Your task to perform on an android device: turn off picture-in-picture Image 0: 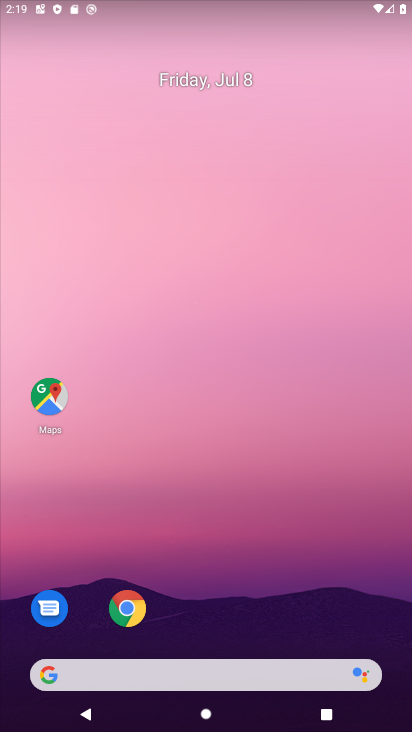
Step 0: drag from (333, 606) to (316, 1)
Your task to perform on an android device: turn off picture-in-picture Image 1: 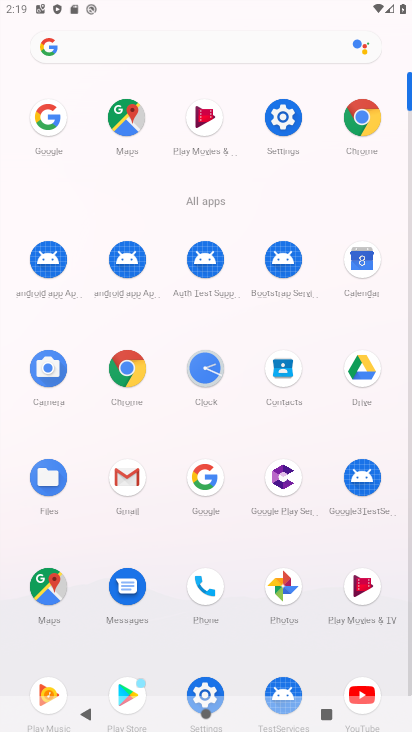
Step 1: click (280, 120)
Your task to perform on an android device: turn off picture-in-picture Image 2: 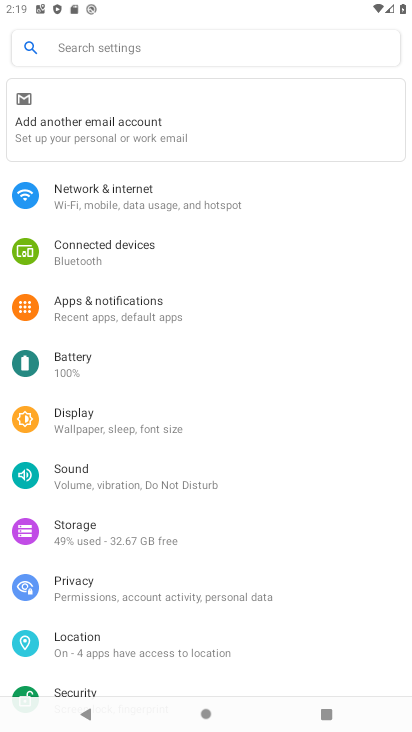
Step 2: click (143, 310)
Your task to perform on an android device: turn off picture-in-picture Image 3: 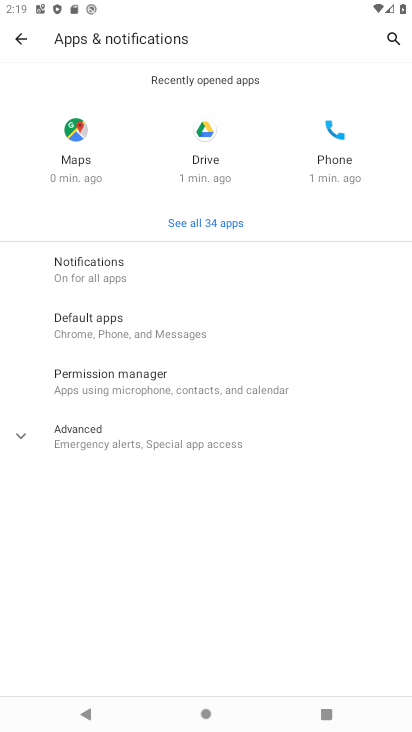
Step 3: click (125, 439)
Your task to perform on an android device: turn off picture-in-picture Image 4: 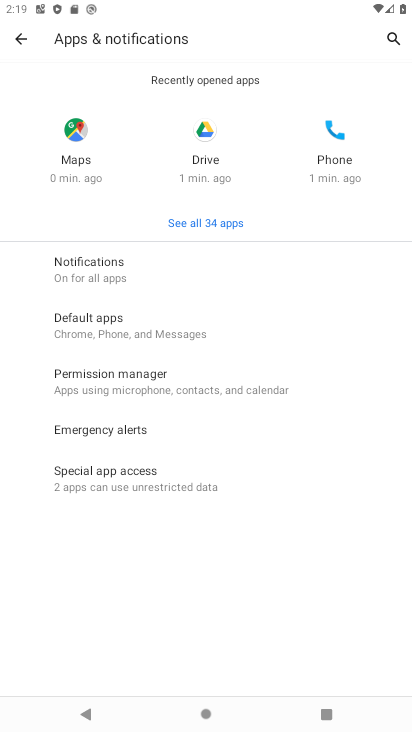
Step 4: click (153, 485)
Your task to perform on an android device: turn off picture-in-picture Image 5: 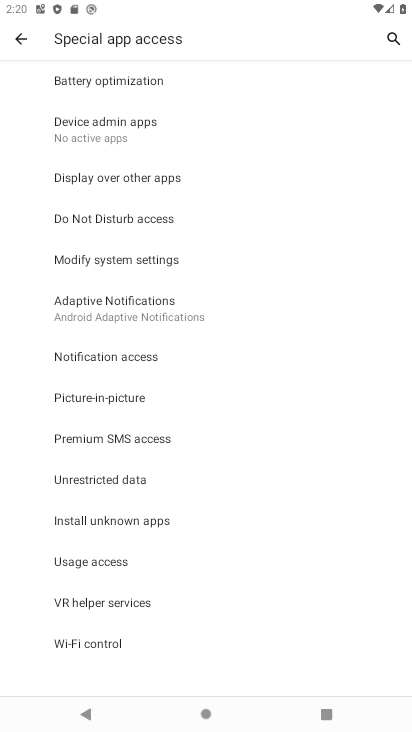
Step 5: click (130, 401)
Your task to perform on an android device: turn off picture-in-picture Image 6: 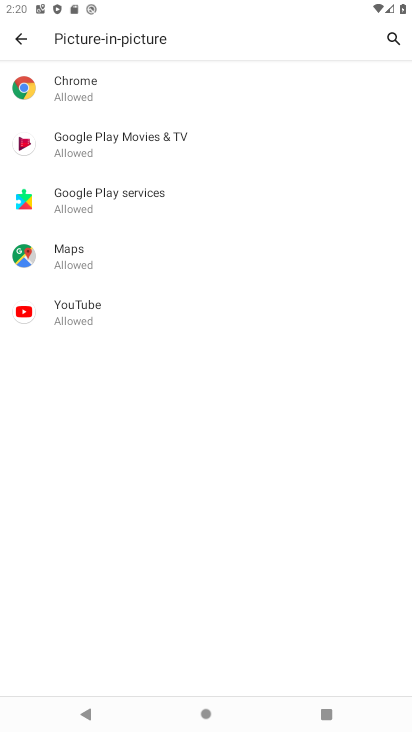
Step 6: click (93, 93)
Your task to perform on an android device: turn off picture-in-picture Image 7: 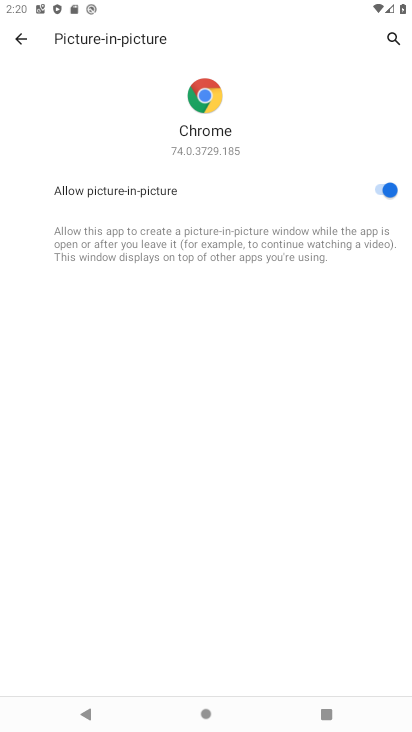
Step 7: click (382, 193)
Your task to perform on an android device: turn off picture-in-picture Image 8: 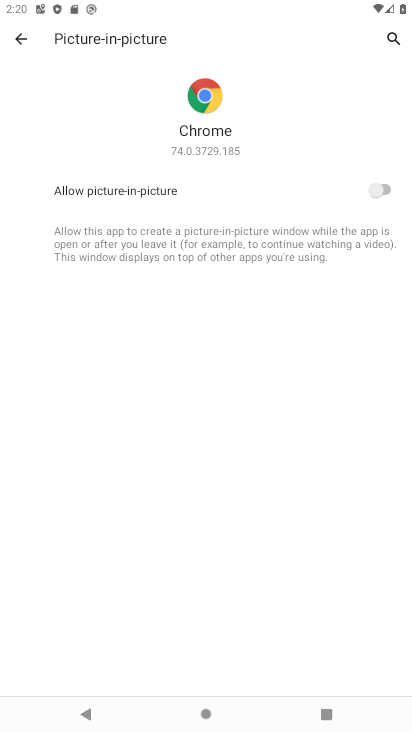
Step 8: press back button
Your task to perform on an android device: turn off picture-in-picture Image 9: 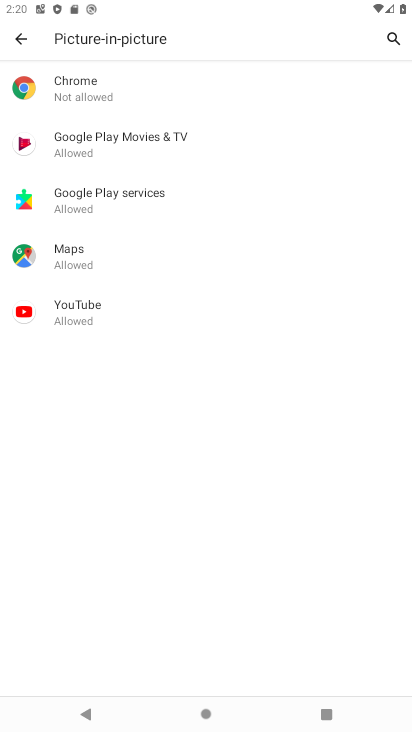
Step 9: click (90, 147)
Your task to perform on an android device: turn off picture-in-picture Image 10: 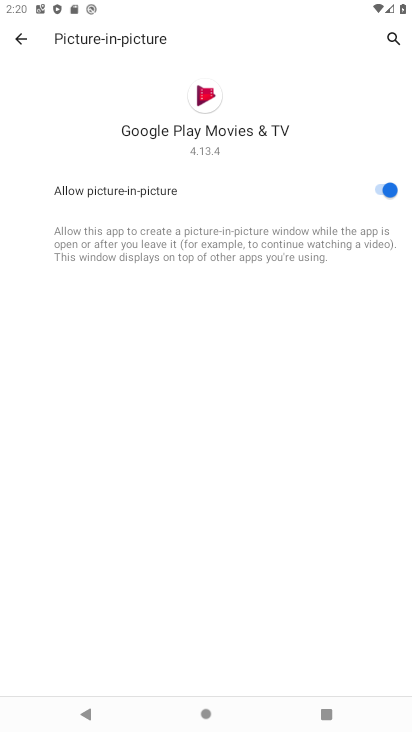
Step 10: click (377, 185)
Your task to perform on an android device: turn off picture-in-picture Image 11: 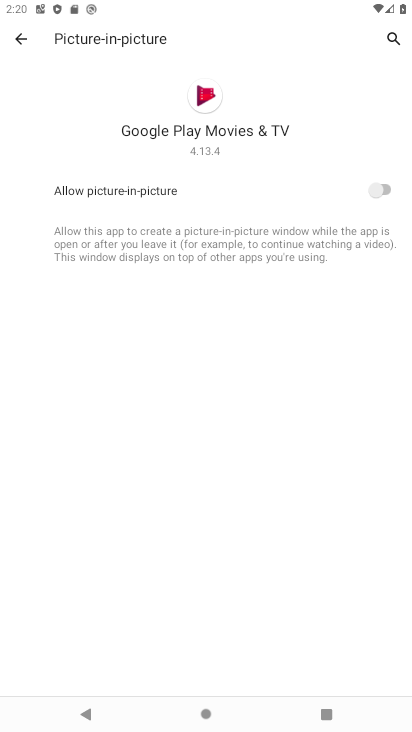
Step 11: press back button
Your task to perform on an android device: turn off picture-in-picture Image 12: 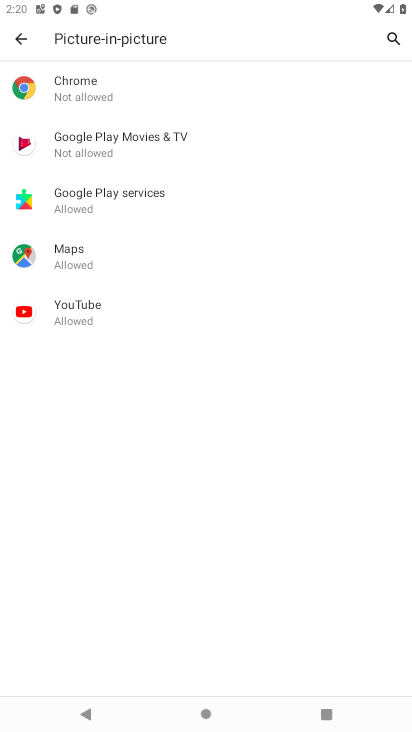
Step 12: click (94, 198)
Your task to perform on an android device: turn off picture-in-picture Image 13: 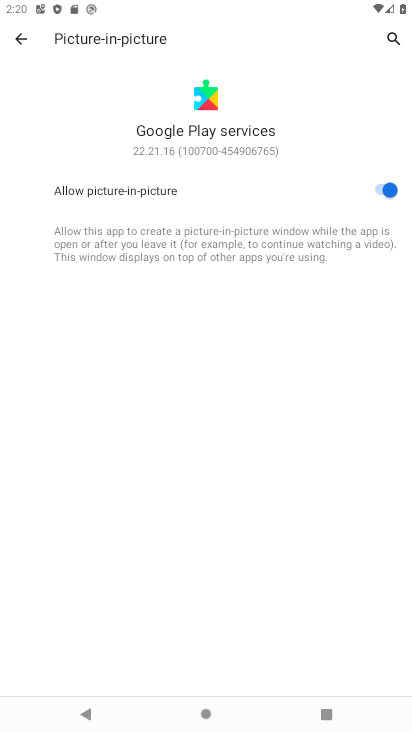
Step 13: click (377, 188)
Your task to perform on an android device: turn off picture-in-picture Image 14: 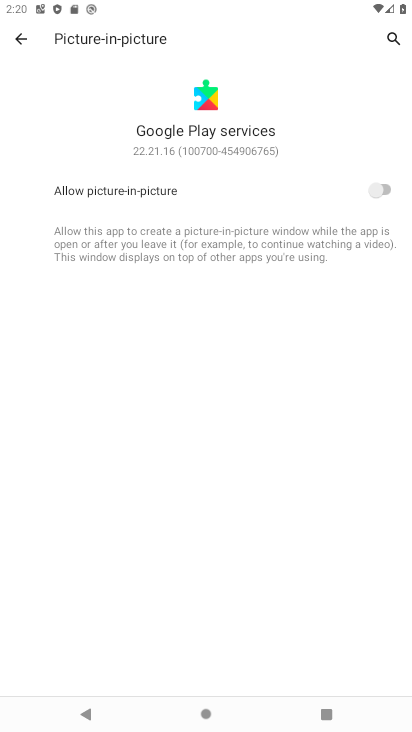
Step 14: press back button
Your task to perform on an android device: turn off picture-in-picture Image 15: 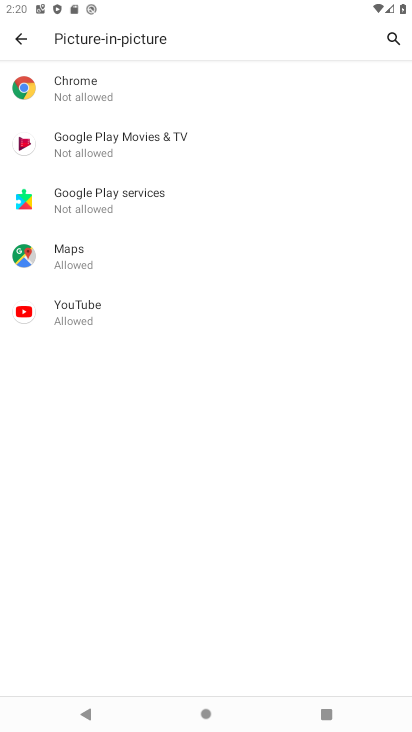
Step 15: click (137, 266)
Your task to perform on an android device: turn off picture-in-picture Image 16: 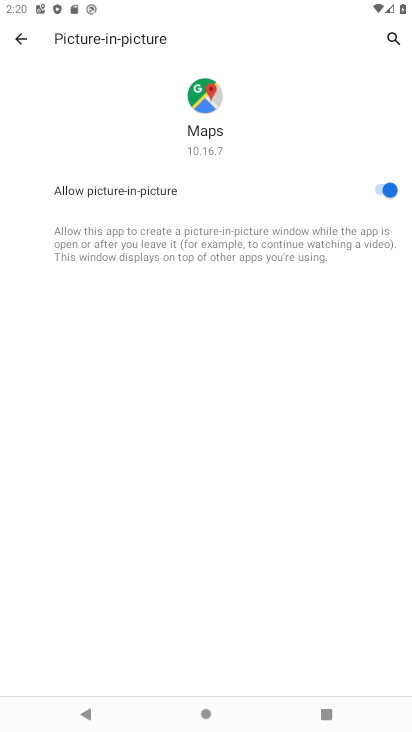
Step 16: click (385, 188)
Your task to perform on an android device: turn off picture-in-picture Image 17: 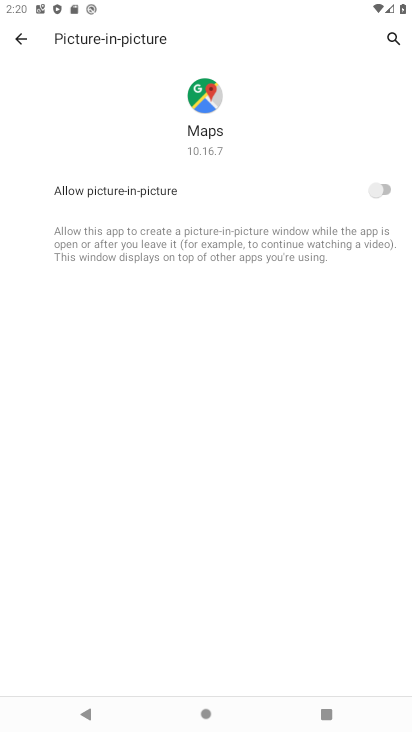
Step 17: press back button
Your task to perform on an android device: turn off picture-in-picture Image 18: 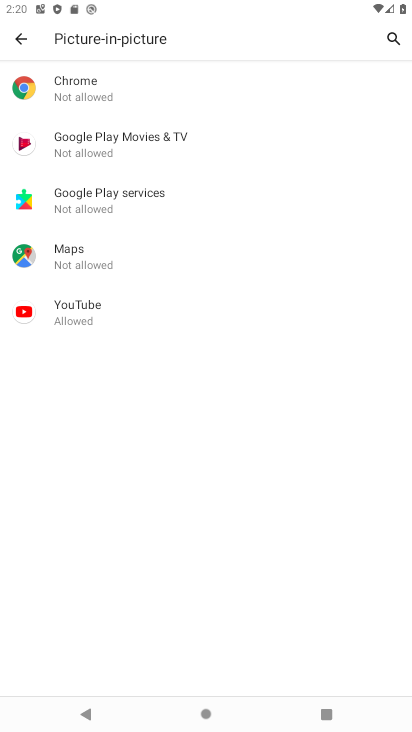
Step 18: click (113, 314)
Your task to perform on an android device: turn off picture-in-picture Image 19: 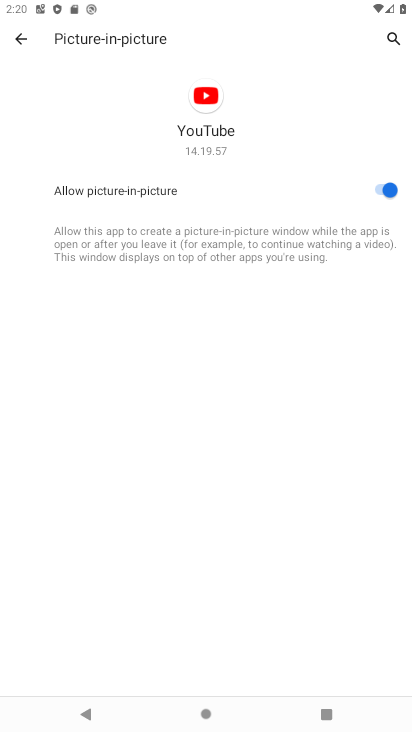
Step 19: click (381, 189)
Your task to perform on an android device: turn off picture-in-picture Image 20: 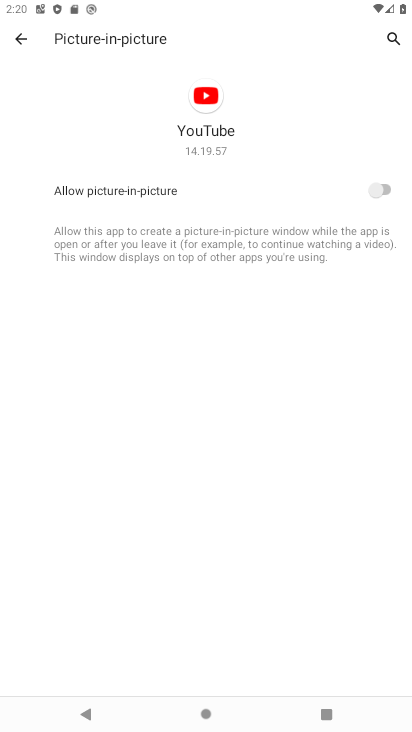
Step 20: task complete